Your task to perform on an android device: Search for acer nitro on amazon, select the first entry, add it to the cart, then select checkout. Image 0: 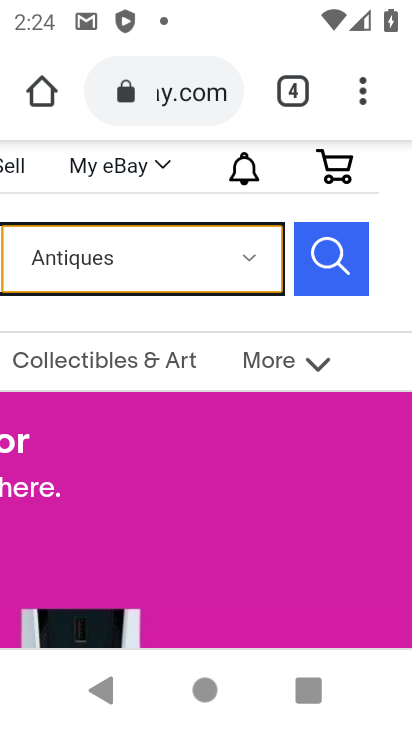
Step 0: press home button
Your task to perform on an android device: Search for acer nitro on amazon, select the first entry, add it to the cart, then select checkout. Image 1: 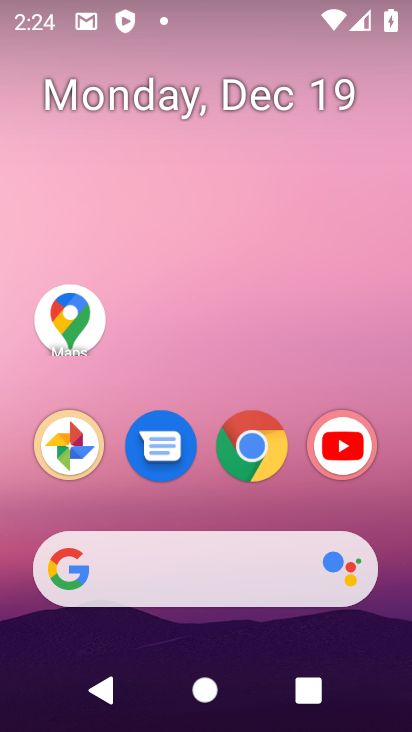
Step 1: click (246, 442)
Your task to perform on an android device: Search for acer nitro on amazon, select the first entry, add it to the cart, then select checkout. Image 2: 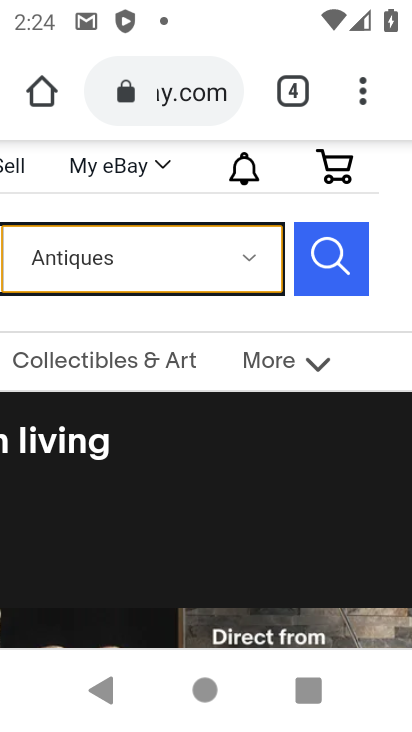
Step 2: click (204, 92)
Your task to perform on an android device: Search for acer nitro on amazon, select the first entry, add it to the cart, then select checkout. Image 3: 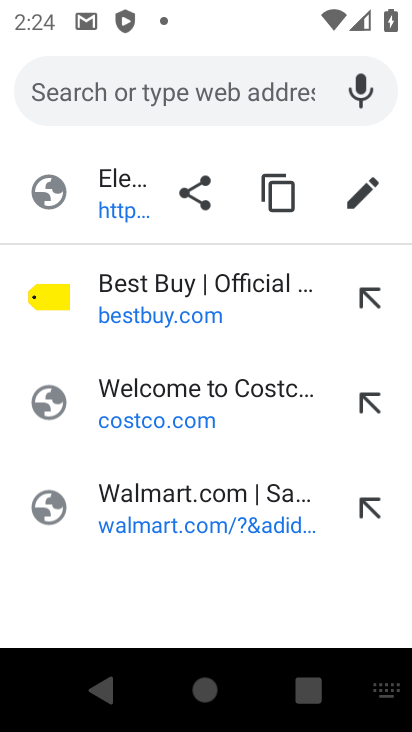
Step 3: type "amazon"
Your task to perform on an android device: Search for acer nitro on amazon, select the first entry, add it to the cart, then select checkout. Image 4: 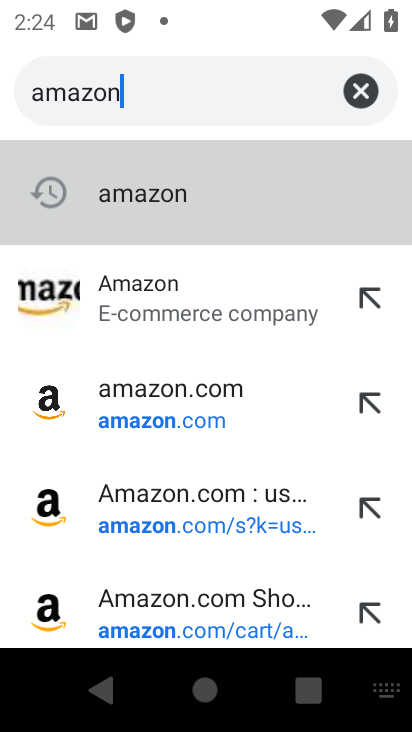
Step 4: click (124, 275)
Your task to perform on an android device: Search for acer nitro on amazon, select the first entry, add it to the cart, then select checkout. Image 5: 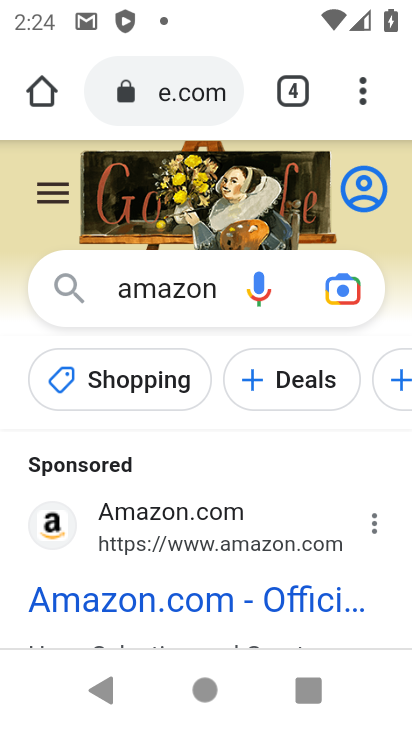
Step 5: click (152, 567)
Your task to perform on an android device: Search for acer nitro on amazon, select the first entry, add it to the cart, then select checkout. Image 6: 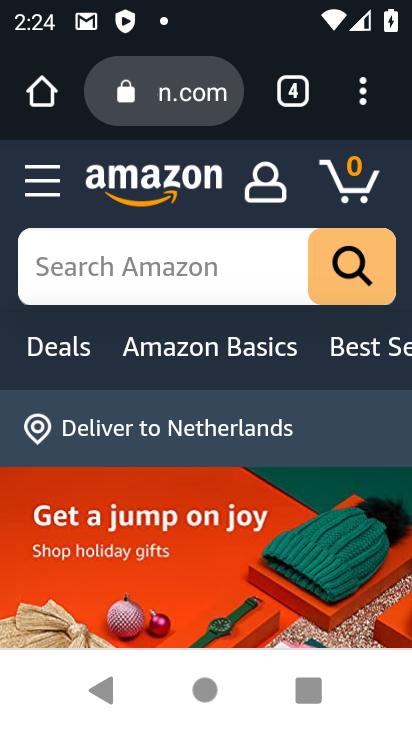
Step 6: click (217, 283)
Your task to perform on an android device: Search for acer nitro on amazon, select the first entry, add it to the cart, then select checkout. Image 7: 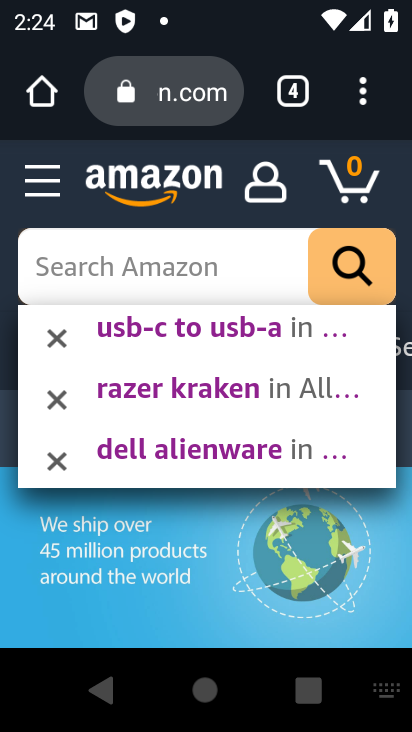
Step 7: type "acer nitro"
Your task to perform on an android device: Search for acer nitro on amazon, select the first entry, add it to the cart, then select checkout. Image 8: 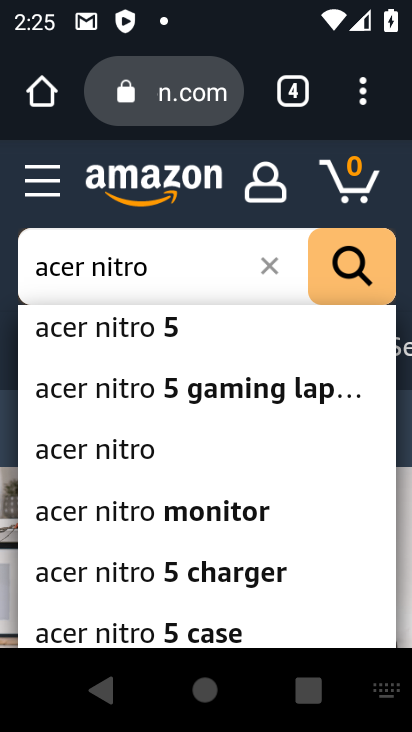
Step 8: click (147, 440)
Your task to perform on an android device: Search for acer nitro on amazon, select the first entry, add it to the cart, then select checkout. Image 9: 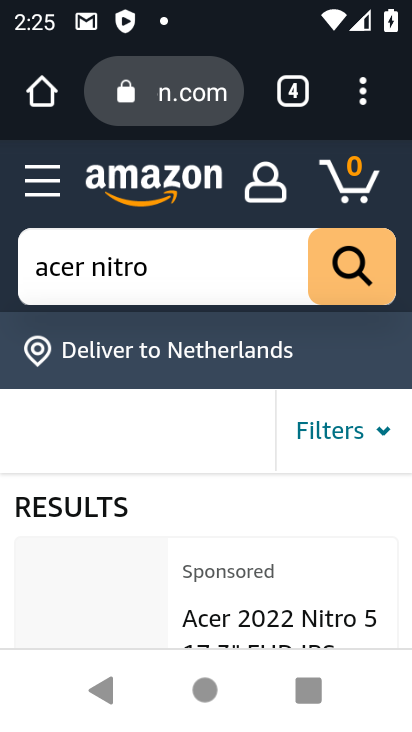
Step 9: click (287, 639)
Your task to perform on an android device: Search for acer nitro on amazon, select the first entry, add it to the cart, then select checkout. Image 10: 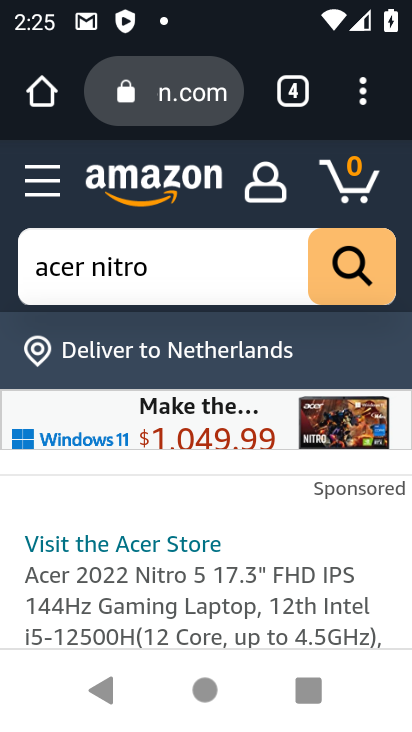
Step 10: task complete